Your task to perform on an android device: Open Yahoo.com Image 0: 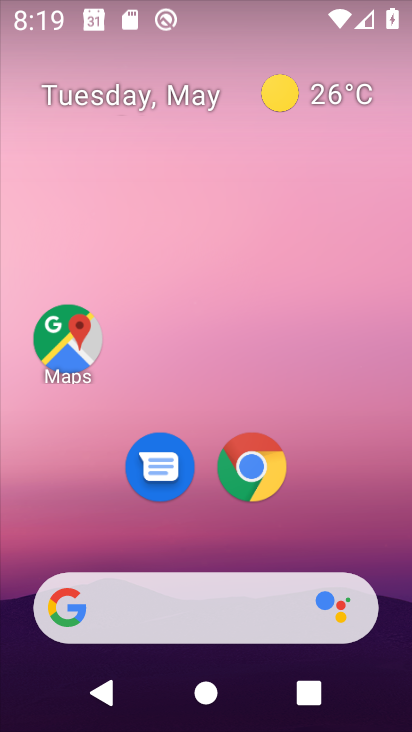
Step 0: click (259, 474)
Your task to perform on an android device: Open Yahoo.com Image 1: 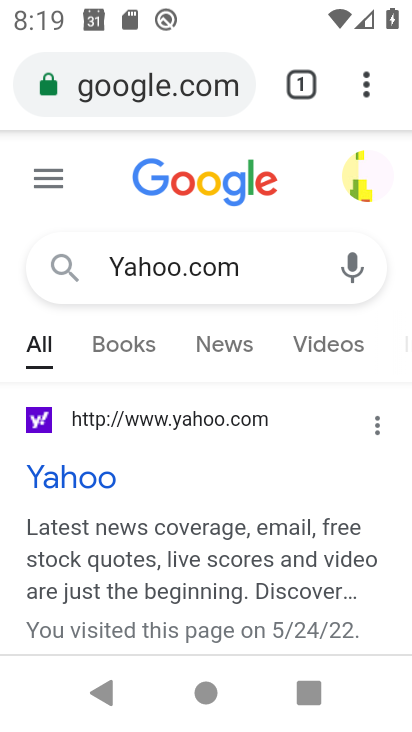
Step 1: task complete